Your task to perform on an android device: Open CNN.com Image 0: 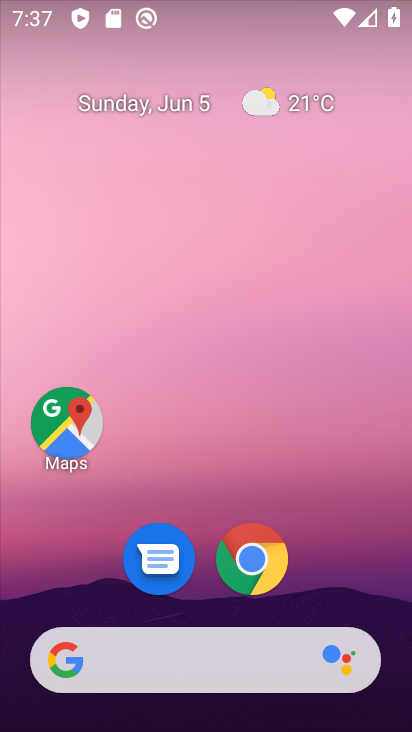
Step 0: click (259, 562)
Your task to perform on an android device: Open CNN.com Image 1: 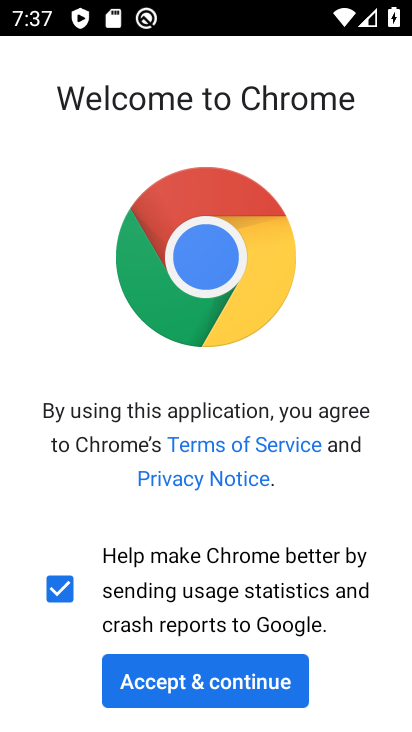
Step 1: click (207, 667)
Your task to perform on an android device: Open CNN.com Image 2: 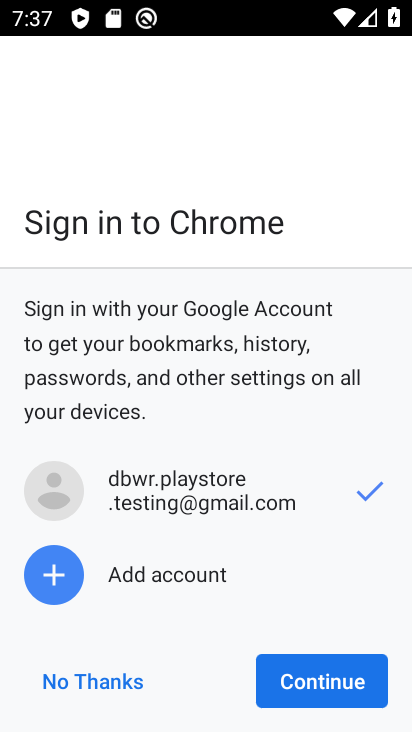
Step 2: click (331, 692)
Your task to perform on an android device: Open CNN.com Image 3: 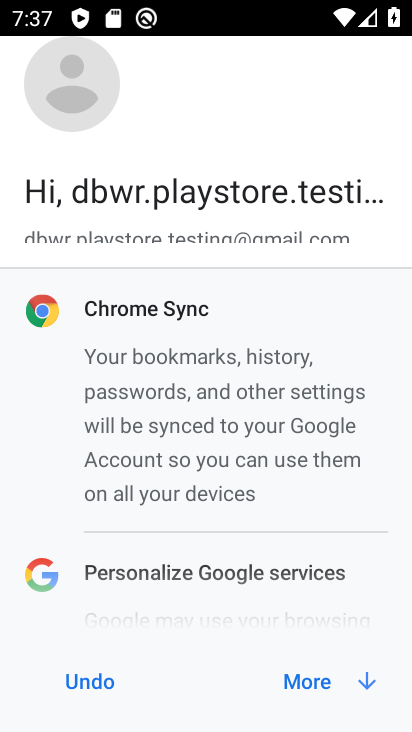
Step 3: click (332, 691)
Your task to perform on an android device: Open CNN.com Image 4: 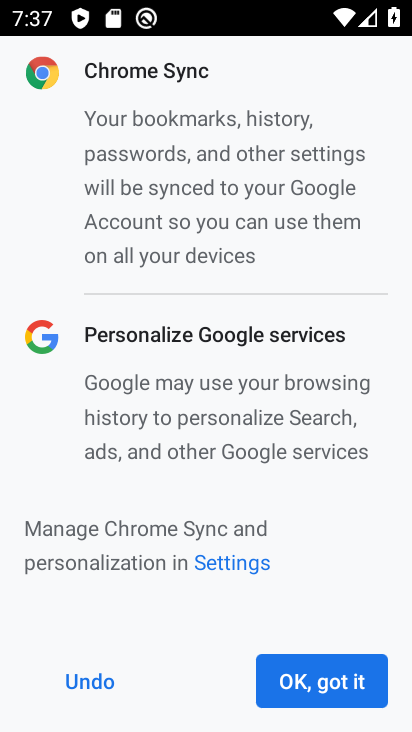
Step 4: click (332, 691)
Your task to perform on an android device: Open CNN.com Image 5: 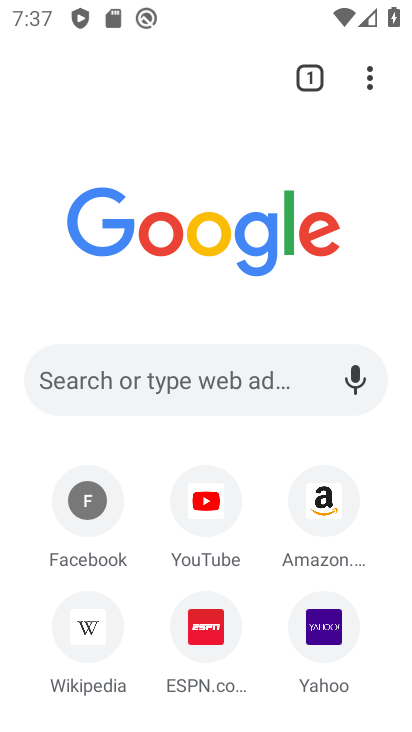
Step 5: click (257, 367)
Your task to perform on an android device: Open CNN.com Image 6: 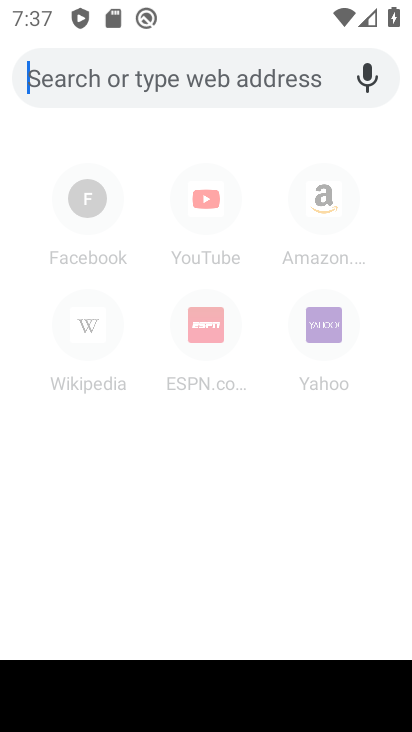
Step 6: type "cnn.com"
Your task to perform on an android device: Open CNN.com Image 7: 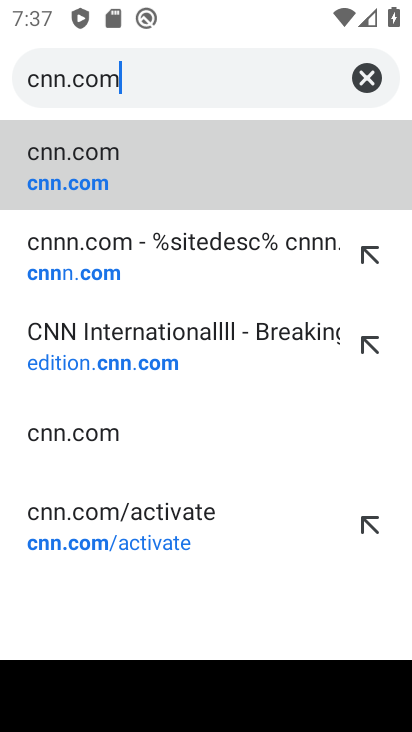
Step 7: click (83, 183)
Your task to perform on an android device: Open CNN.com Image 8: 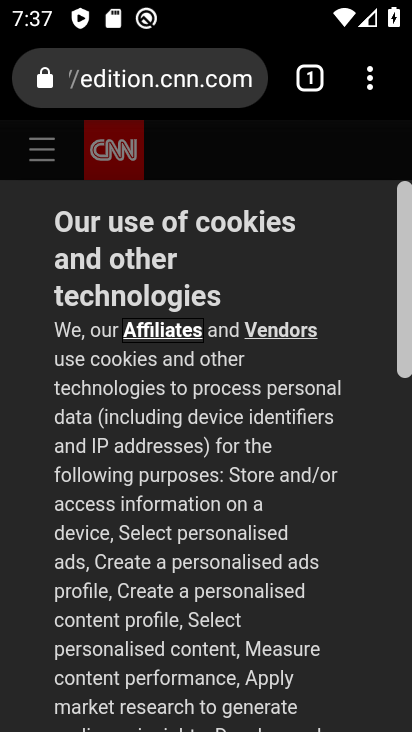
Step 8: task complete